Your task to perform on an android device: Open Google Chrome and open the bookmarks view Image 0: 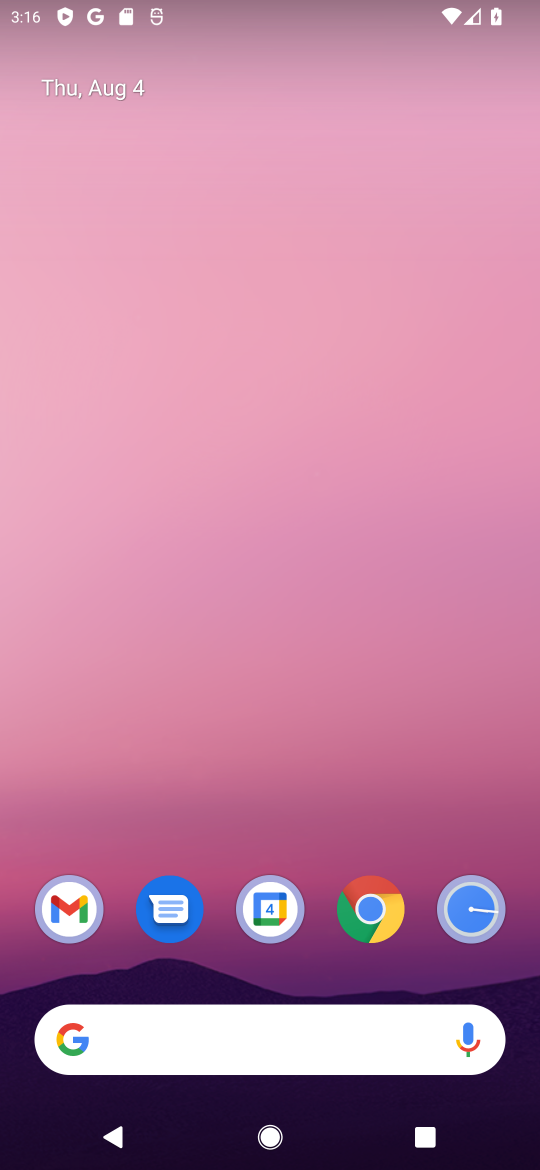
Step 0: click (381, 920)
Your task to perform on an android device: Open Google Chrome and open the bookmarks view Image 1: 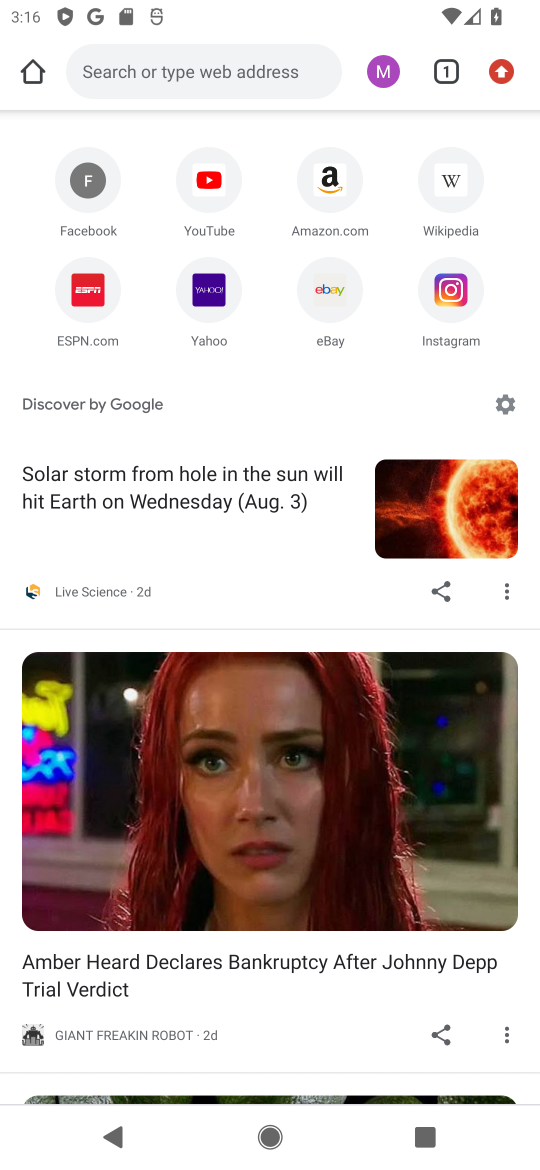
Step 1: task complete